Your task to perform on an android device: see creations saved in the google photos Image 0: 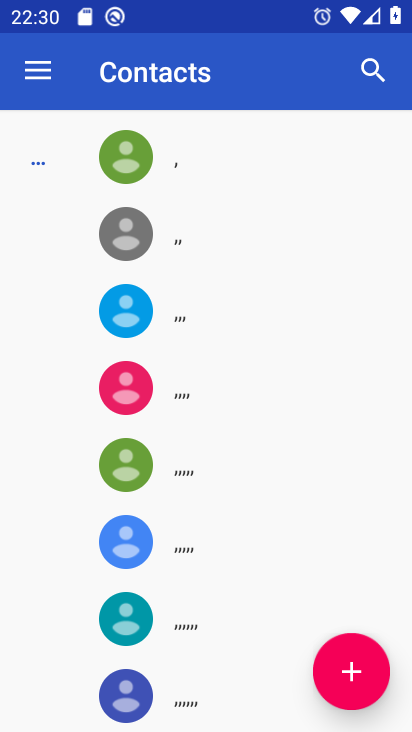
Step 0: press home button
Your task to perform on an android device: see creations saved in the google photos Image 1: 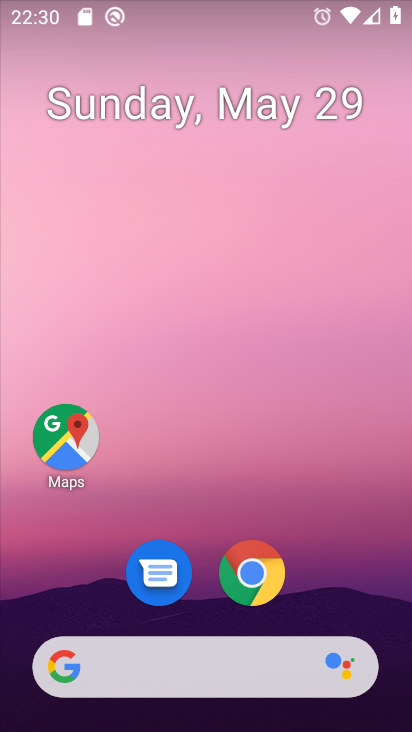
Step 1: drag from (202, 511) to (227, 1)
Your task to perform on an android device: see creations saved in the google photos Image 2: 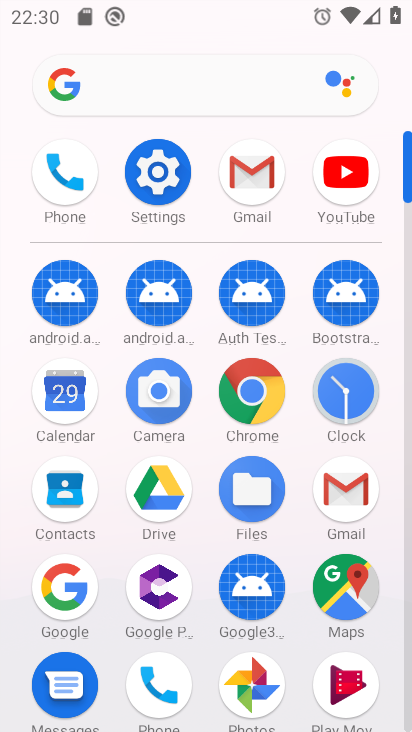
Step 2: click (258, 666)
Your task to perform on an android device: see creations saved in the google photos Image 3: 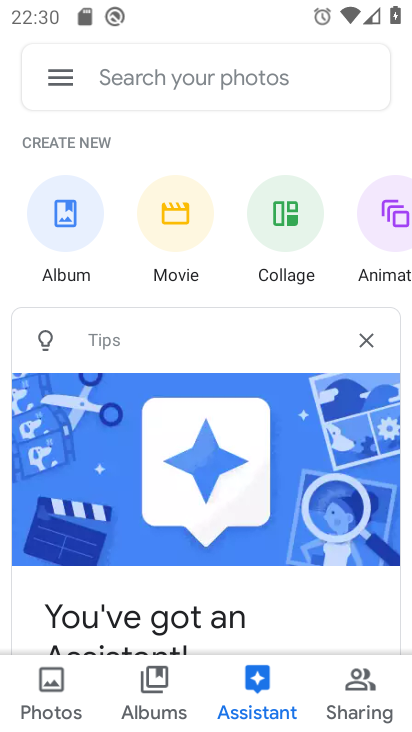
Step 3: click (62, 70)
Your task to perform on an android device: see creations saved in the google photos Image 4: 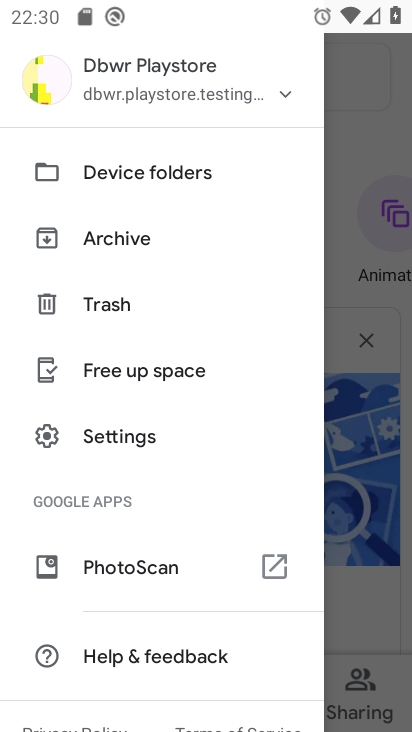
Step 4: click (343, 66)
Your task to perform on an android device: see creations saved in the google photos Image 5: 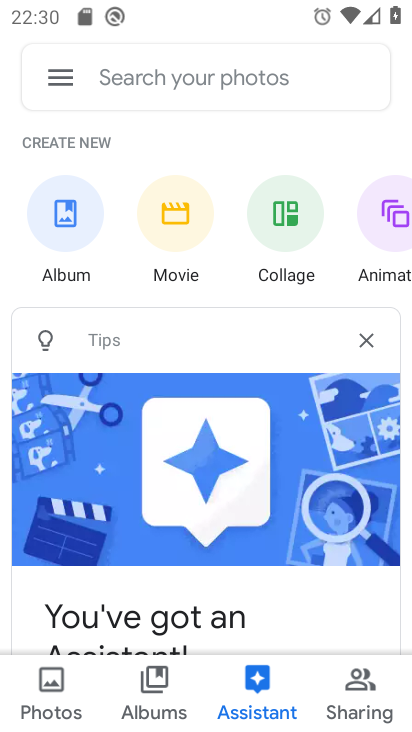
Step 5: click (280, 73)
Your task to perform on an android device: see creations saved in the google photos Image 6: 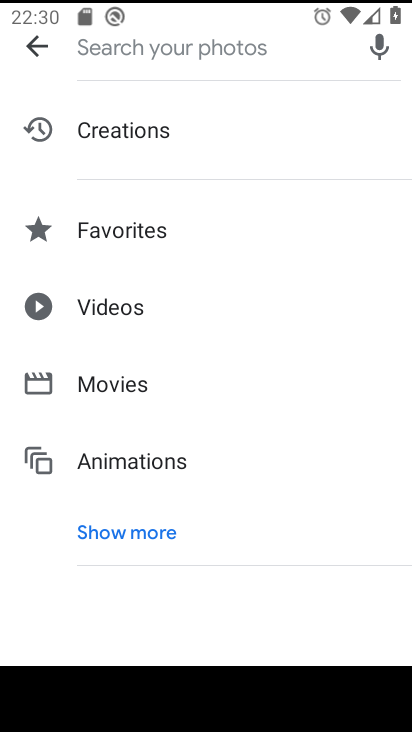
Step 6: click (117, 523)
Your task to perform on an android device: see creations saved in the google photos Image 7: 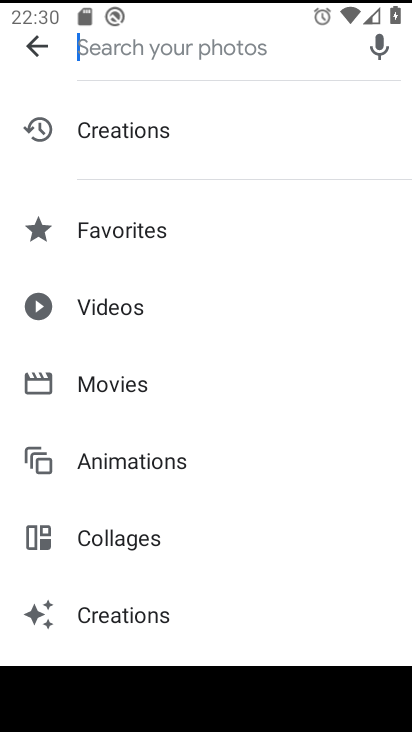
Step 7: click (112, 612)
Your task to perform on an android device: see creations saved in the google photos Image 8: 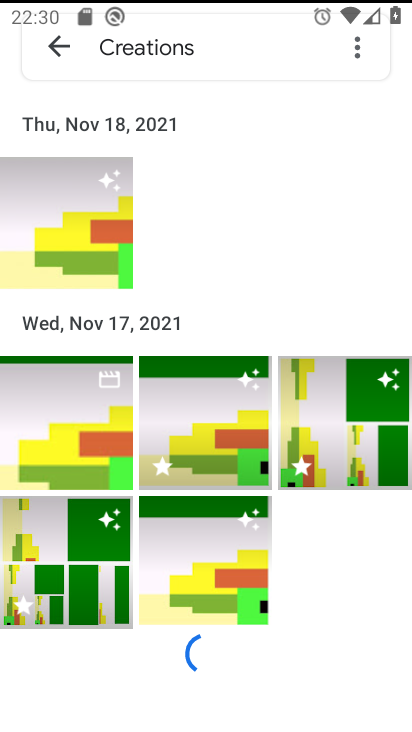
Step 8: task complete